Your task to perform on an android device: Empty the shopping cart on ebay.com. Add "razer kraken" to the cart on ebay.com, then select checkout. Image 0: 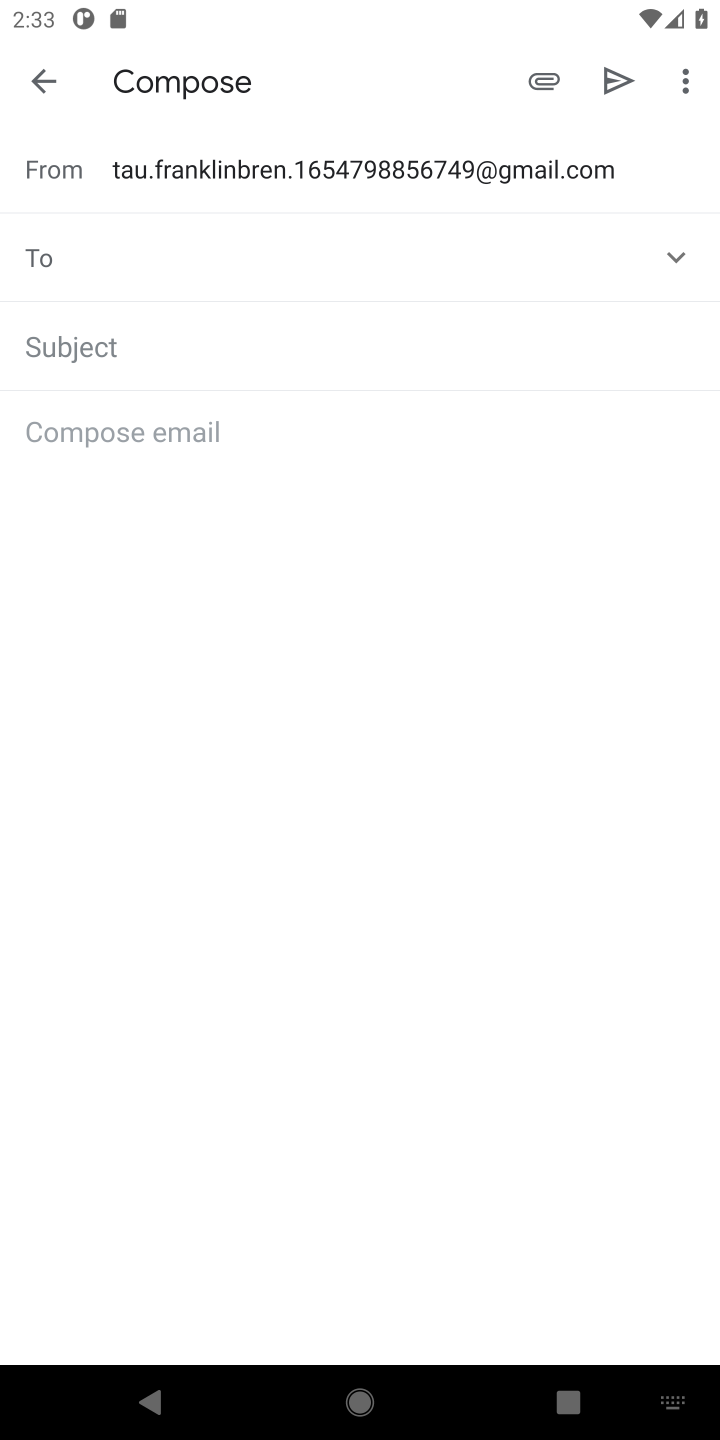
Step 0: press home button
Your task to perform on an android device: Empty the shopping cart on ebay.com. Add "razer kraken" to the cart on ebay.com, then select checkout. Image 1: 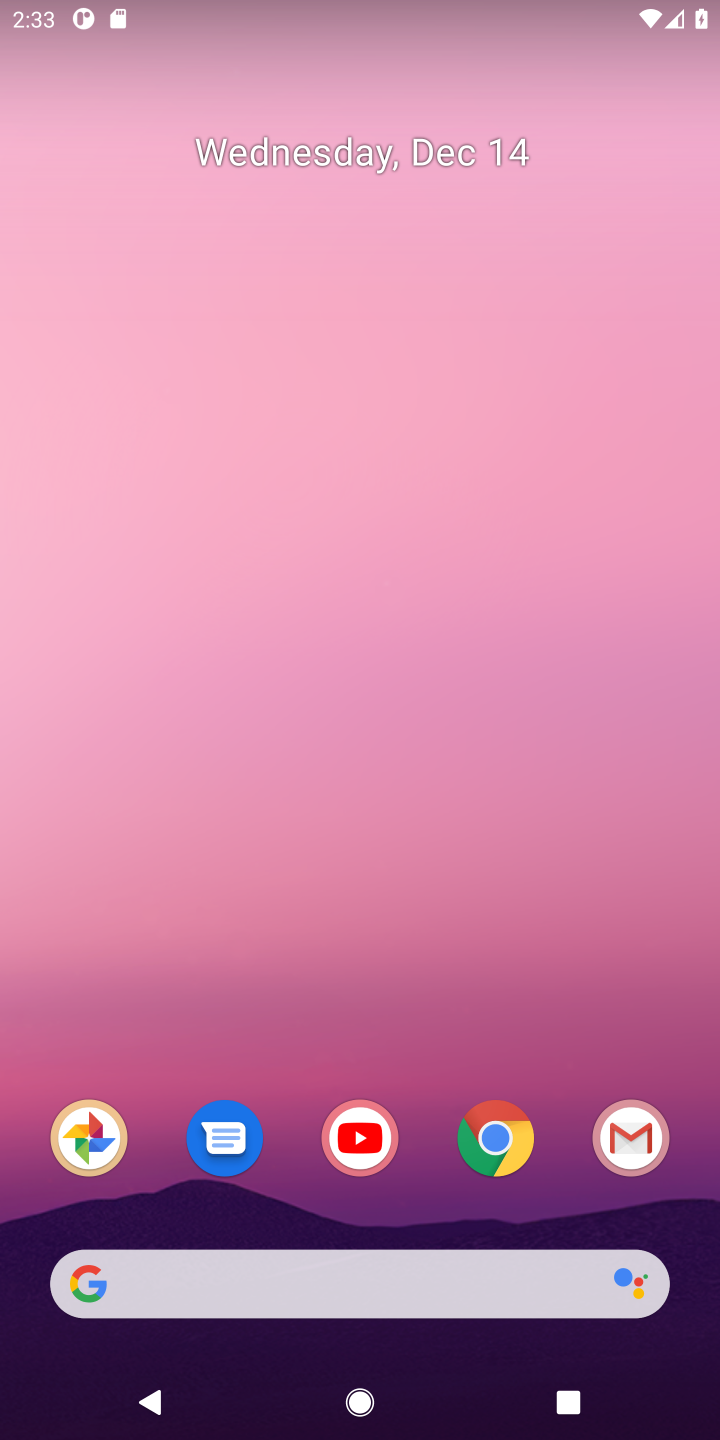
Step 1: click (484, 1112)
Your task to perform on an android device: Empty the shopping cart on ebay.com. Add "razer kraken" to the cart on ebay.com, then select checkout. Image 2: 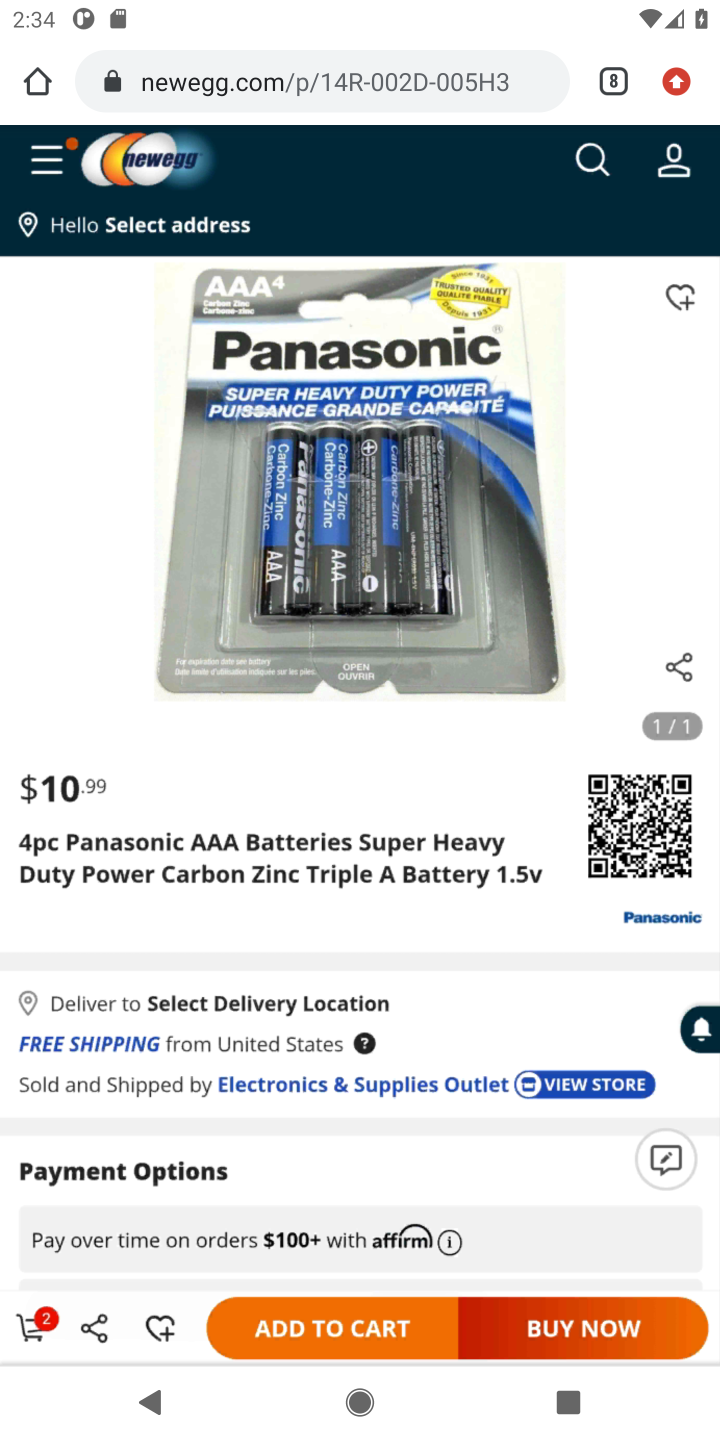
Step 2: click (599, 76)
Your task to perform on an android device: Empty the shopping cart on ebay.com. Add "razer kraken" to the cart on ebay.com, then select checkout. Image 3: 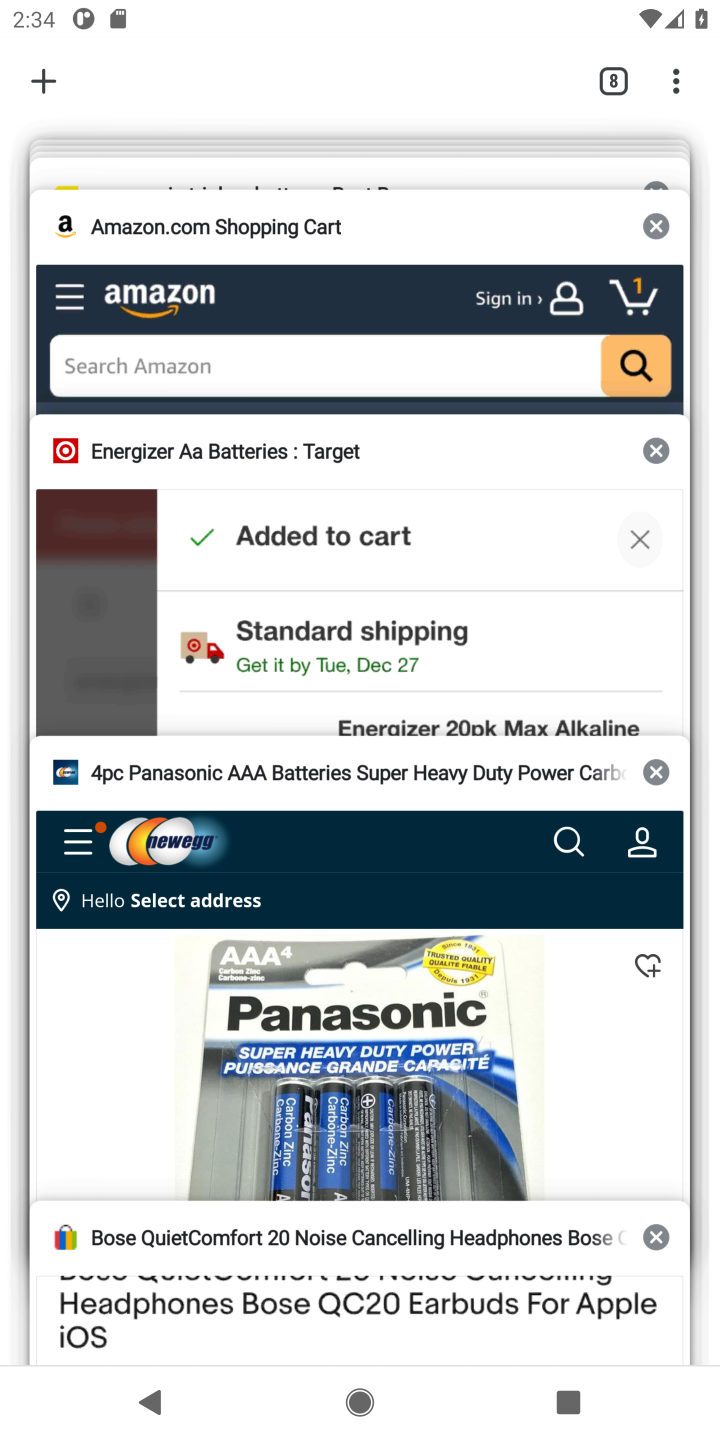
Step 3: click (419, 1243)
Your task to perform on an android device: Empty the shopping cart on ebay.com. Add "razer kraken" to the cart on ebay.com, then select checkout. Image 4: 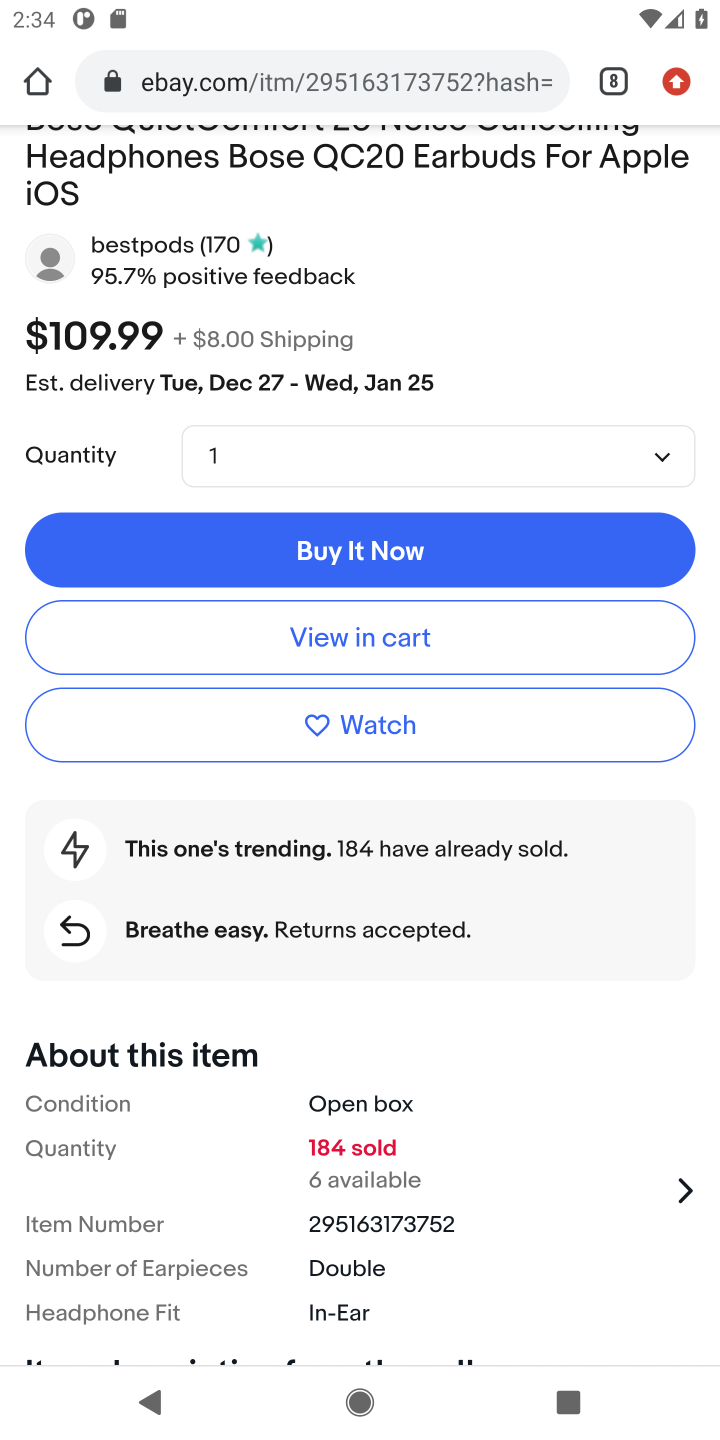
Step 4: click (308, 629)
Your task to perform on an android device: Empty the shopping cart on ebay.com. Add "razer kraken" to the cart on ebay.com, then select checkout. Image 5: 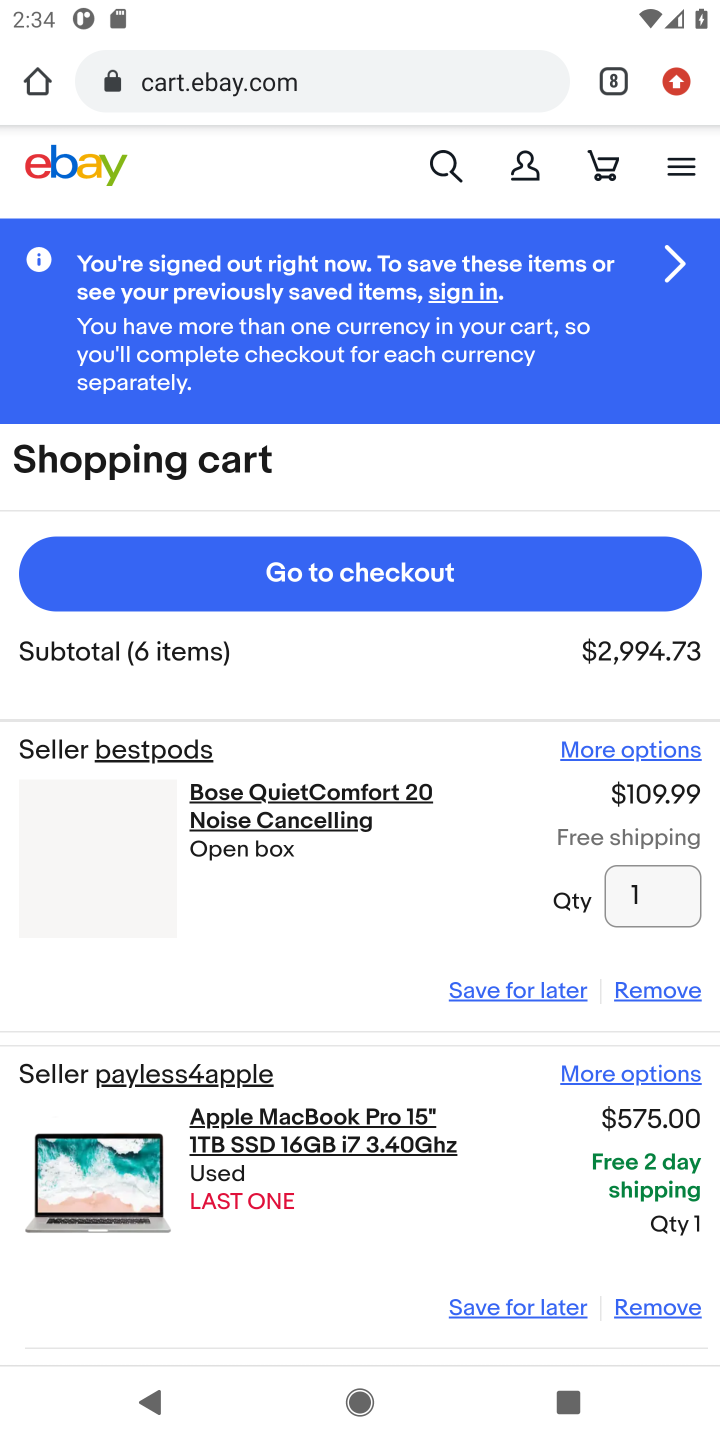
Step 5: click (644, 989)
Your task to perform on an android device: Empty the shopping cart on ebay.com. Add "razer kraken" to the cart on ebay.com, then select checkout. Image 6: 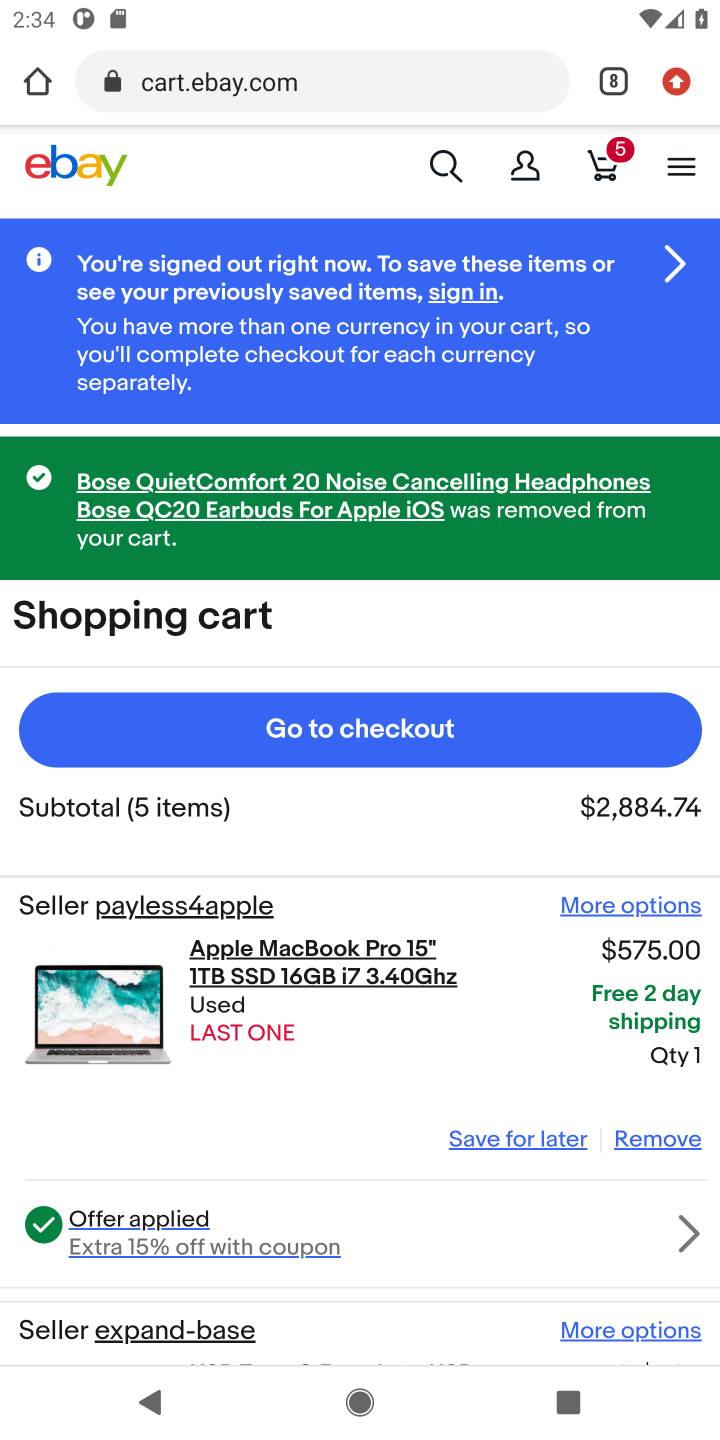
Step 6: click (668, 1133)
Your task to perform on an android device: Empty the shopping cart on ebay.com. Add "razer kraken" to the cart on ebay.com, then select checkout. Image 7: 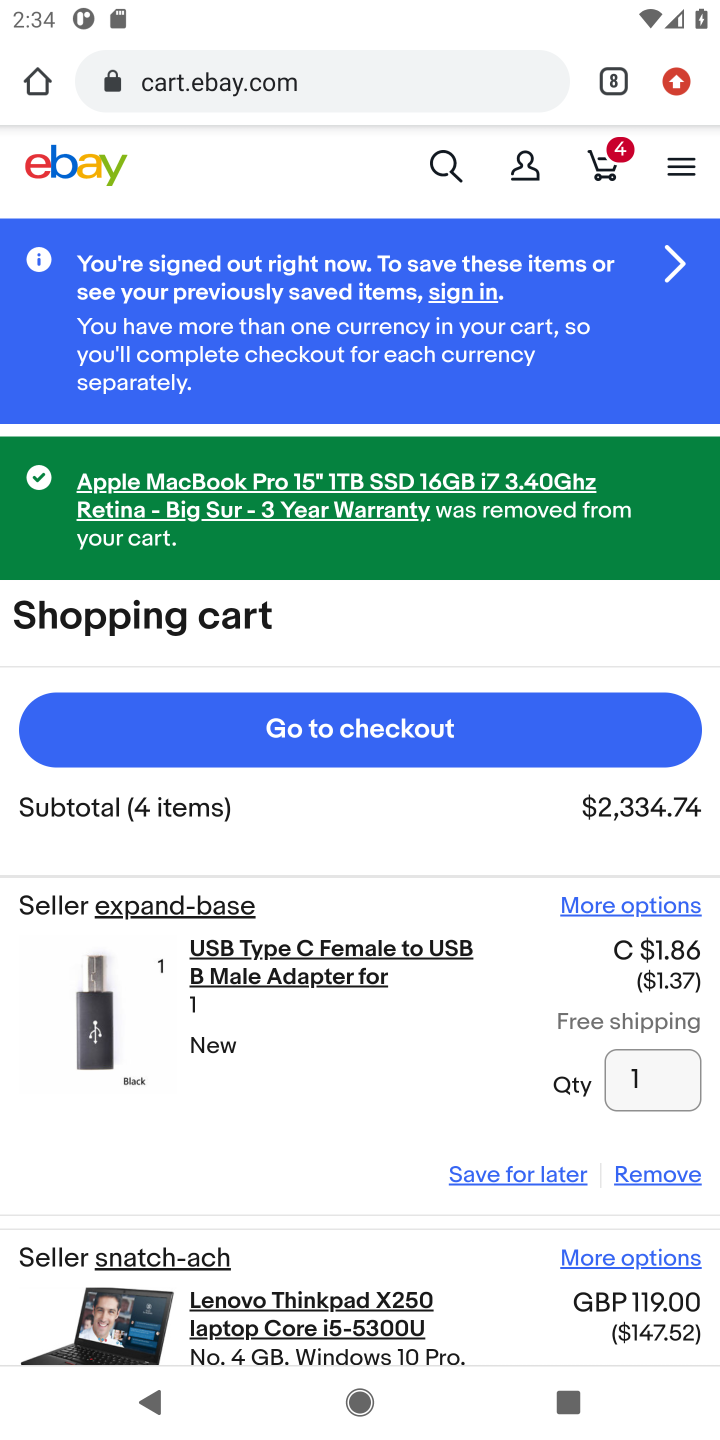
Step 7: click (665, 1168)
Your task to perform on an android device: Empty the shopping cart on ebay.com. Add "razer kraken" to the cart on ebay.com, then select checkout. Image 8: 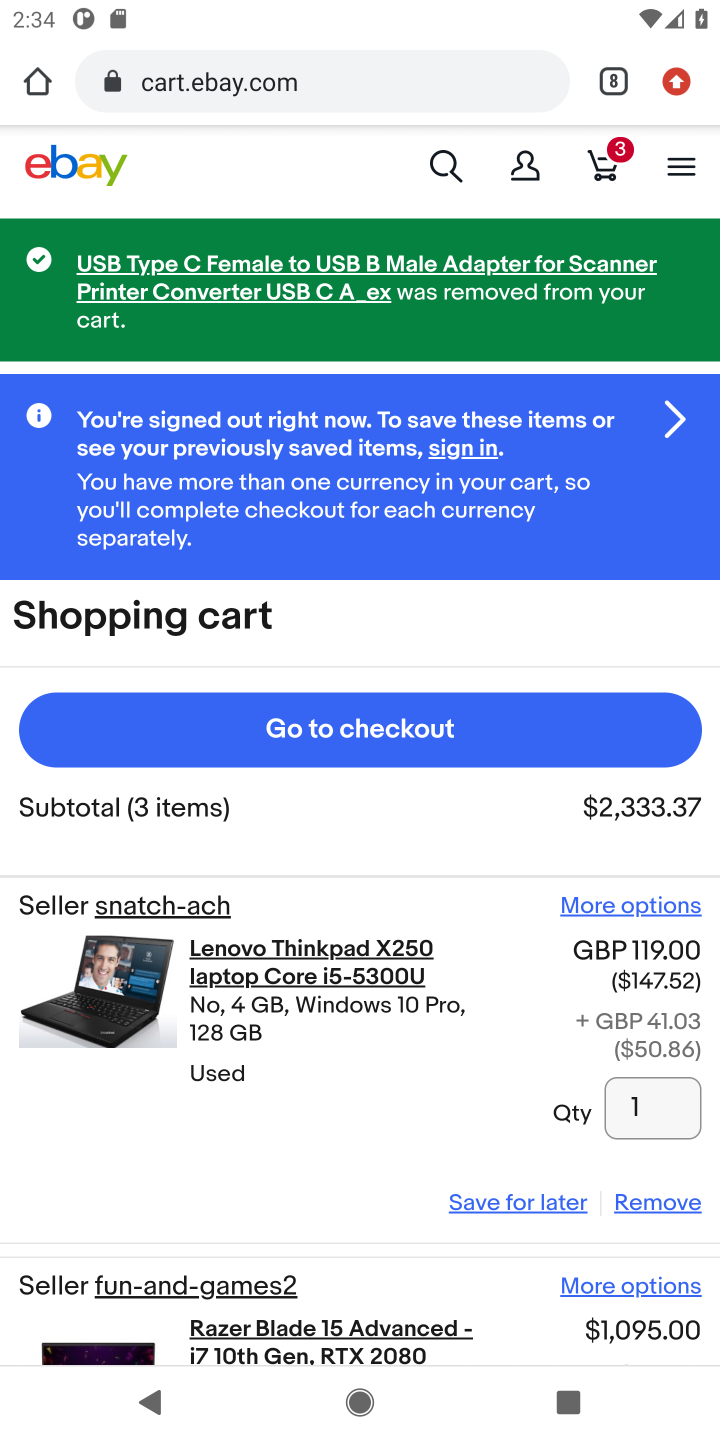
Step 8: click (672, 1200)
Your task to perform on an android device: Empty the shopping cart on ebay.com. Add "razer kraken" to the cart on ebay.com, then select checkout. Image 9: 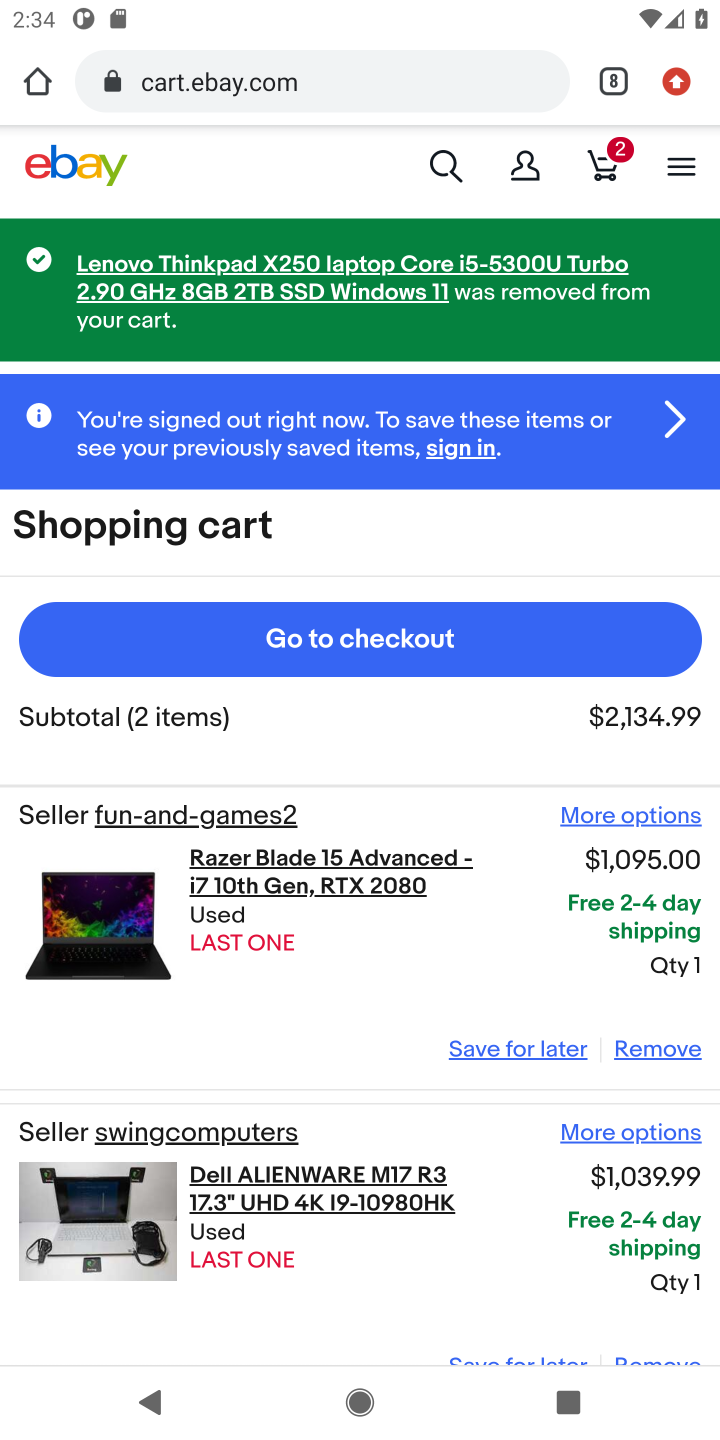
Step 9: click (656, 1048)
Your task to perform on an android device: Empty the shopping cart on ebay.com. Add "razer kraken" to the cart on ebay.com, then select checkout. Image 10: 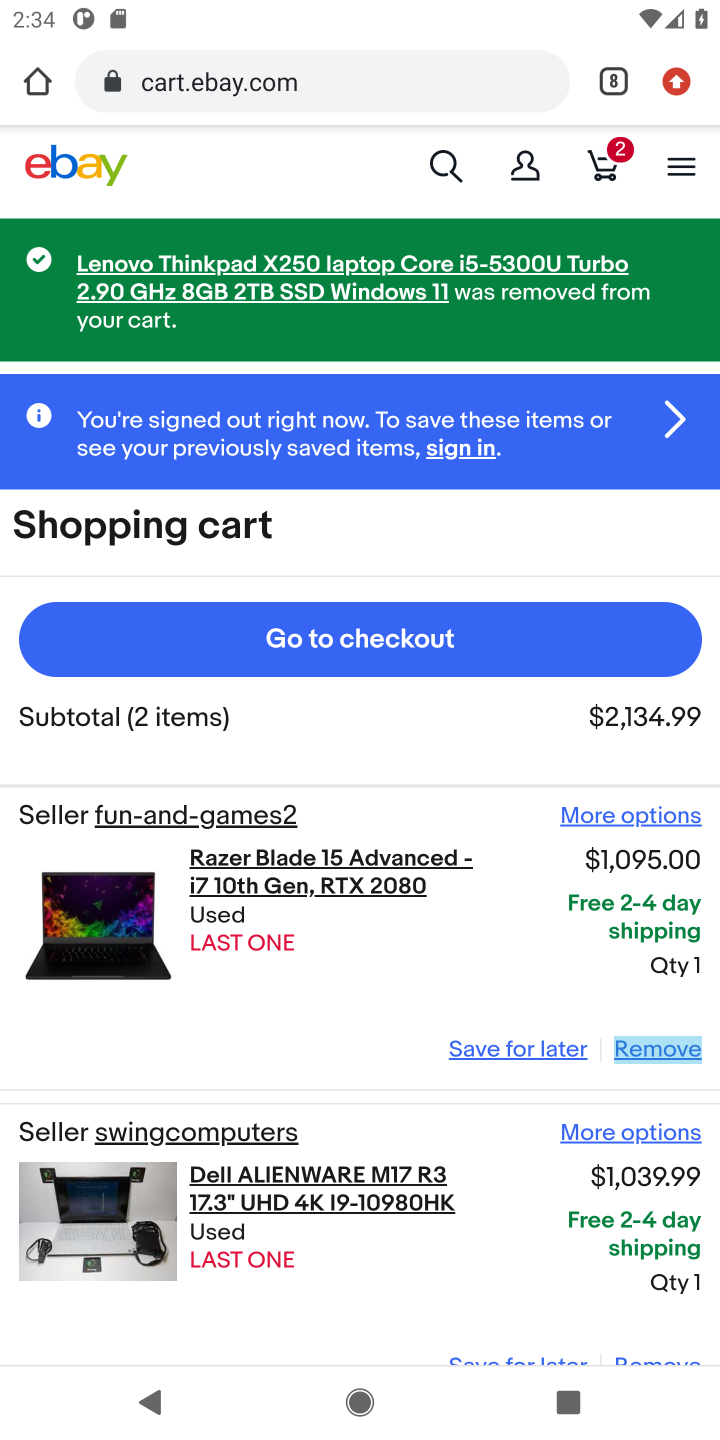
Step 10: click (656, 1048)
Your task to perform on an android device: Empty the shopping cart on ebay.com. Add "razer kraken" to the cart on ebay.com, then select checkout. Image 11: 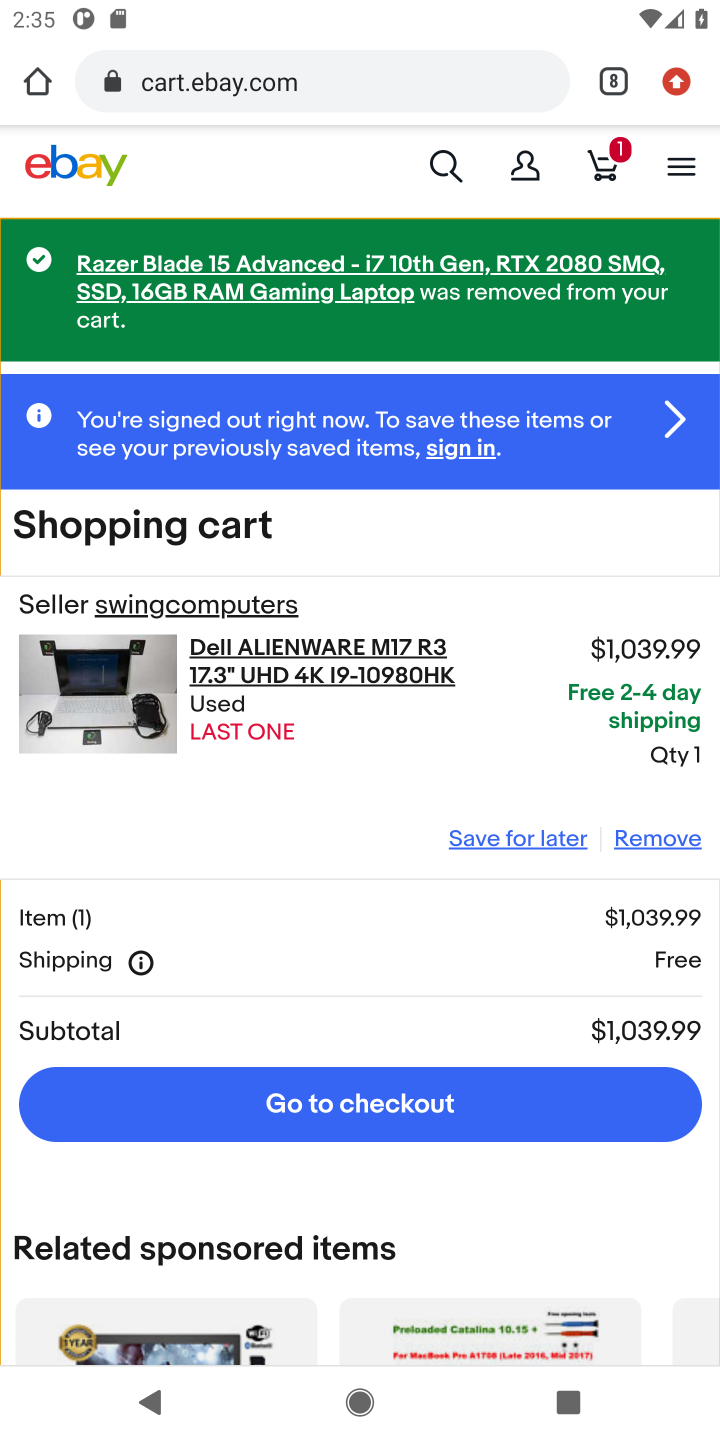
Step 11: click (666, 831)
Your task to perform on an android device: Empty the shopping cart on ebay.com. Add "razer kraken" to the cart on ebay.com, then select checkout. Image 12: 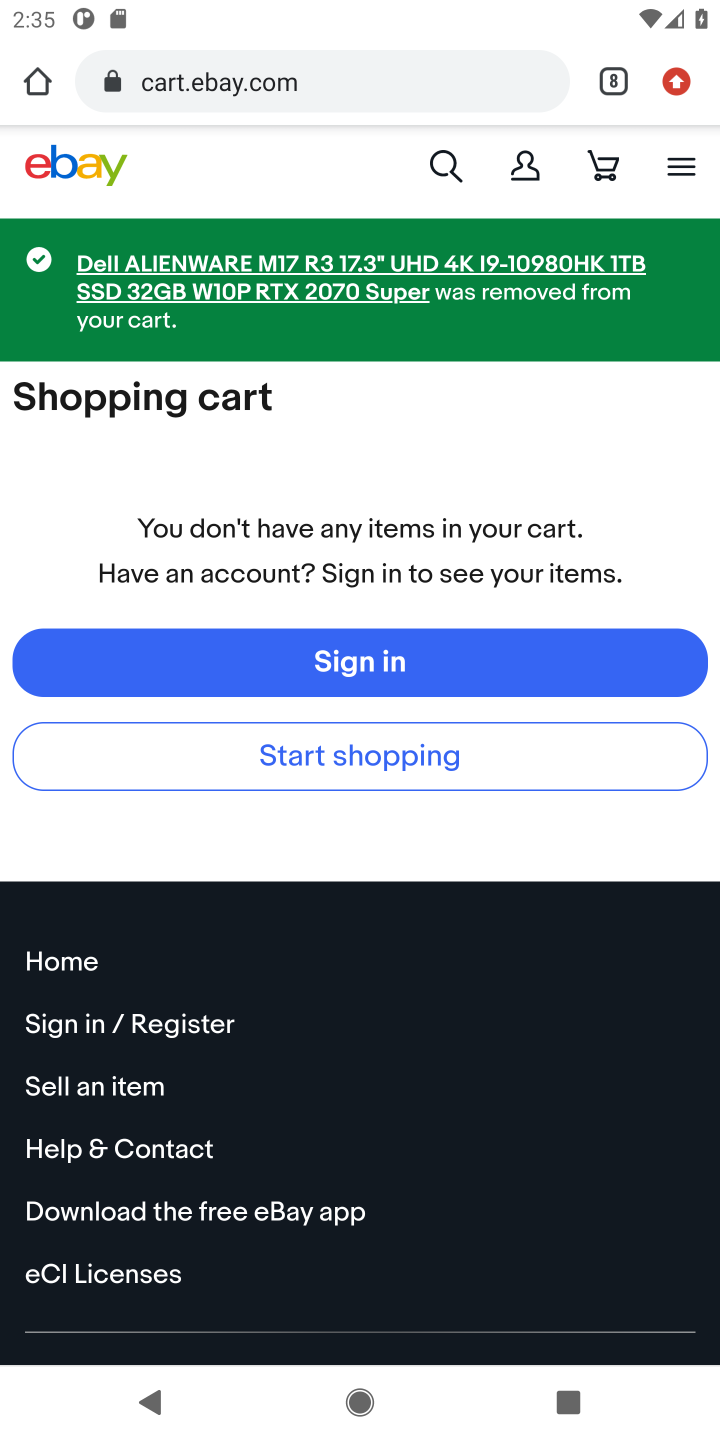
Step 12: click (452, 156)
Your task to perform on an android device: Empty the shopping cart on ebay.com. Add "razer kraken" to the cart on ebay.com, then select checkout. Image 13: 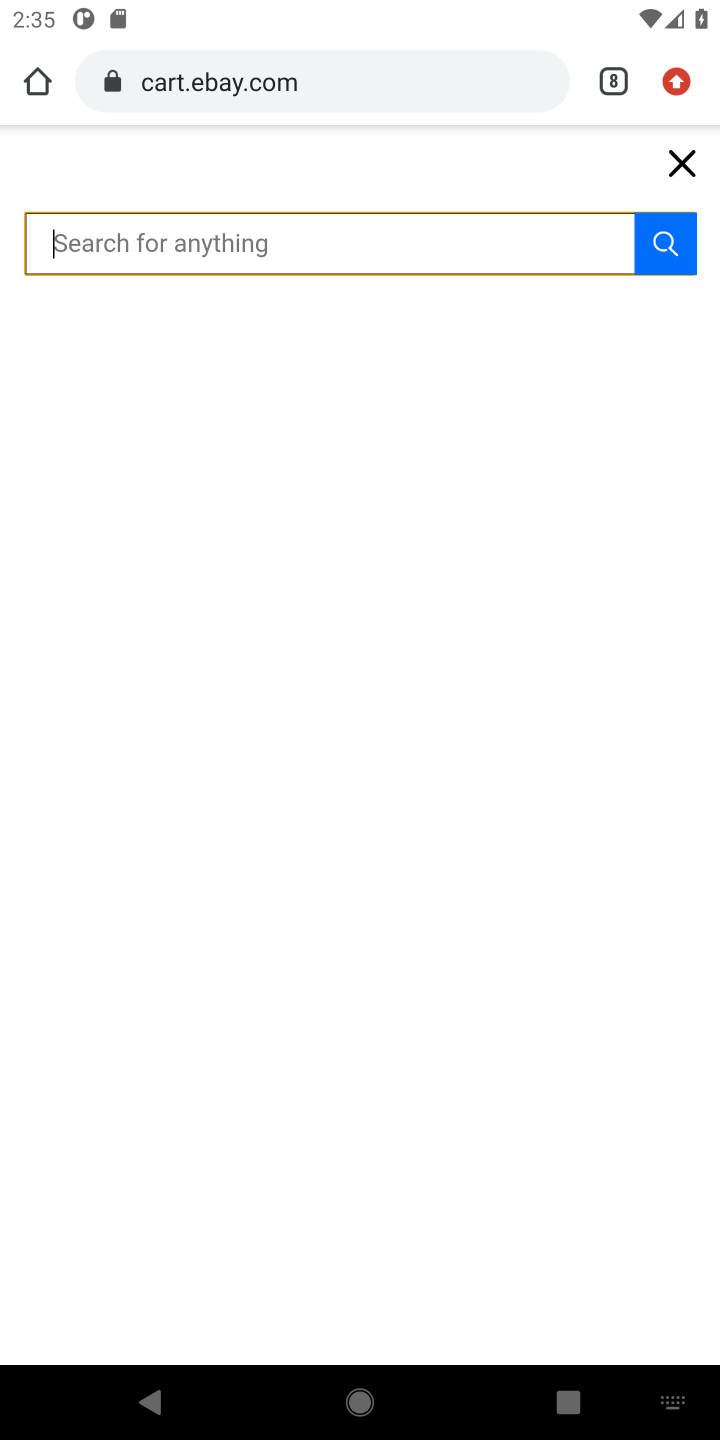
Step 13: type ""razer kraken"
Your task to perform on an android device: Empty the shopping cart on ebay.com. Add "razer kraken" to the cart on ebay.com, then select checkout. Image 14: 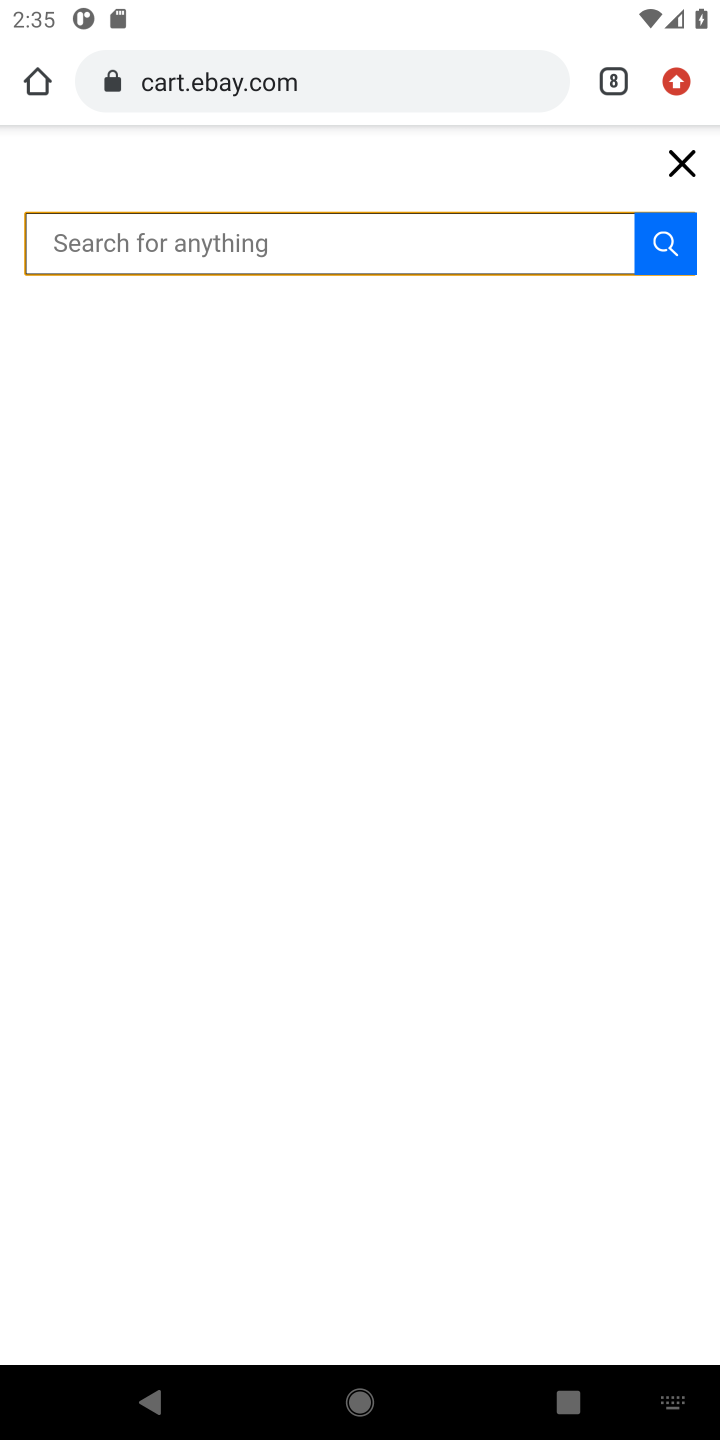
Step 14: type ""razer kraken"
Your task to perform on an android device: Empty the shopping cart on ebay.com. Add "razer kraken" to the cart on ebay.com, then select checkout. Image 15: 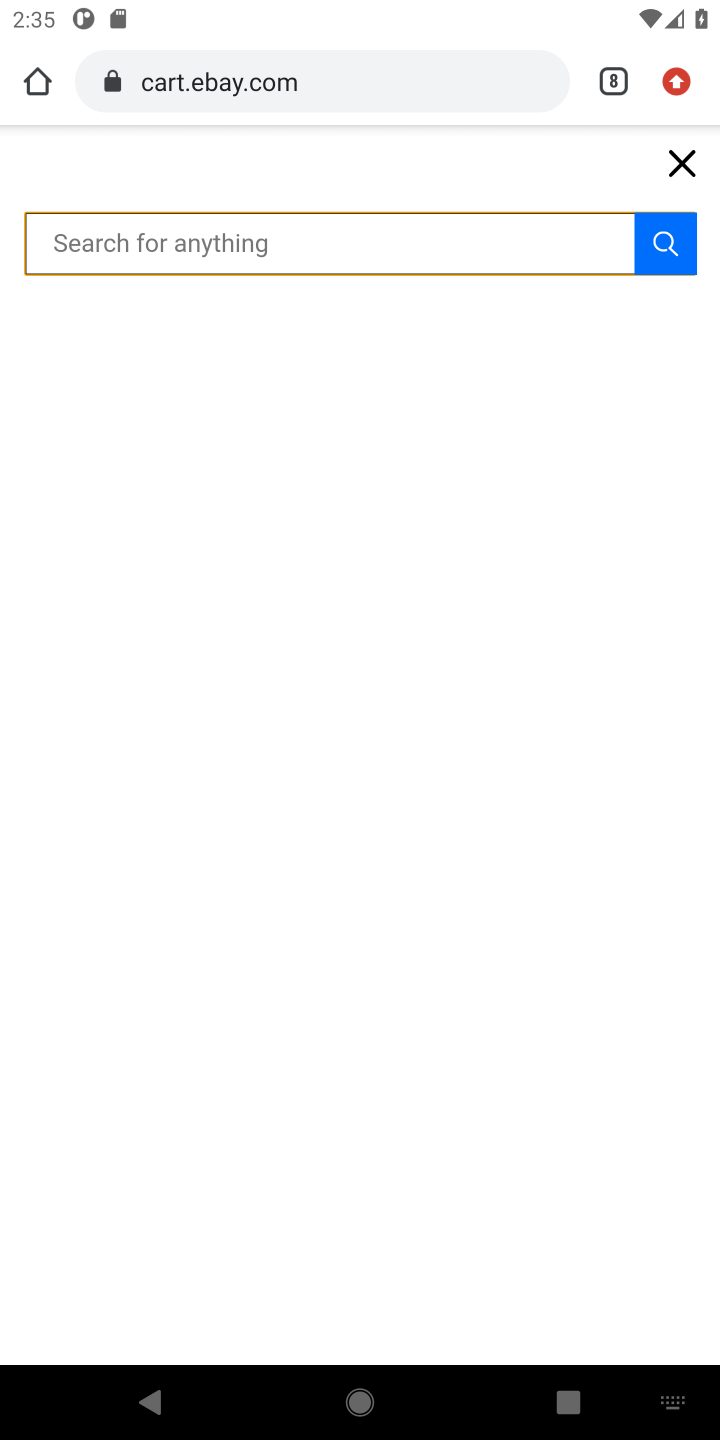
Step 15: type ""razer kraken"
Your task to perform on an android device: Empty the shopping cart on ebay.com. Add "razer kraken" to the cart on ebay.com, then select checkout. Image 16: 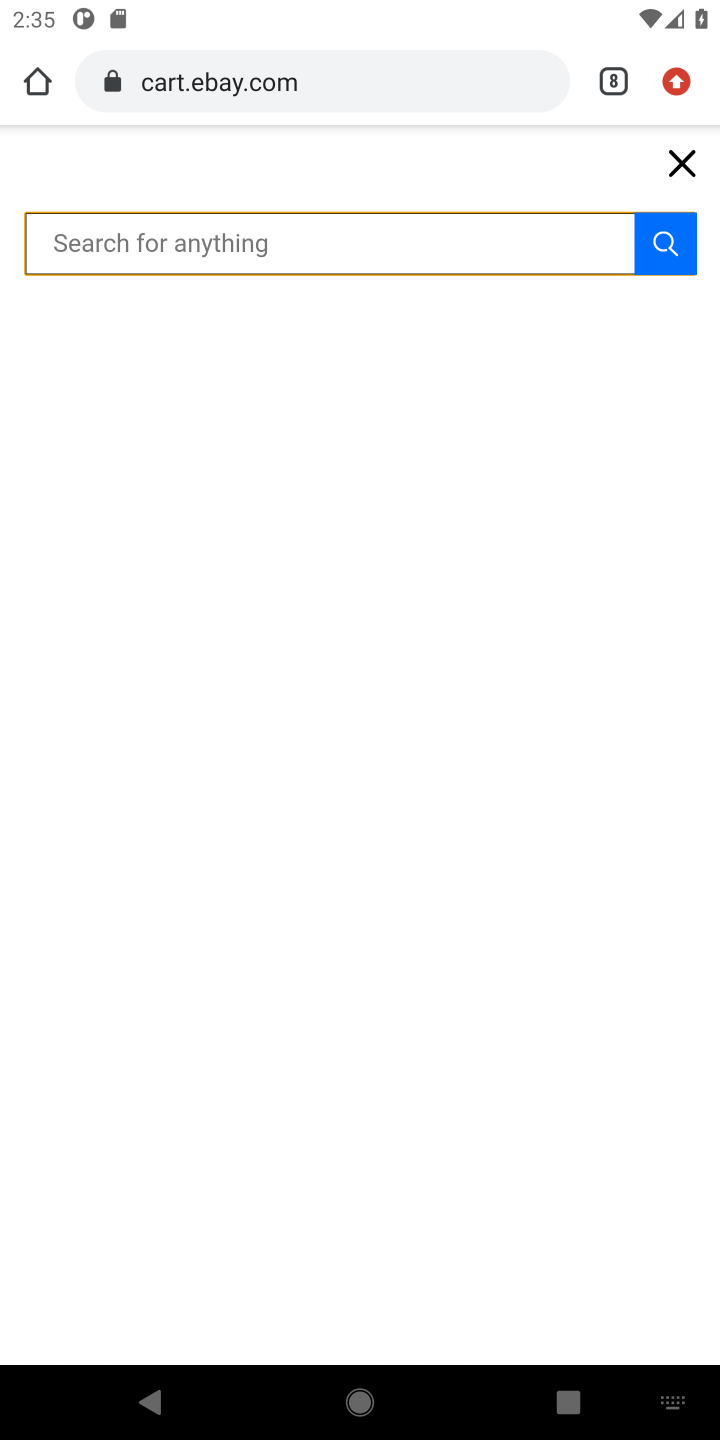
Step 16: type "razer kraken"
Your task to perform on an android device: Empty the shopping cart on ebay.com. Add "razer kraken" to the cart on ebay.com, then select checkout. Image 17: 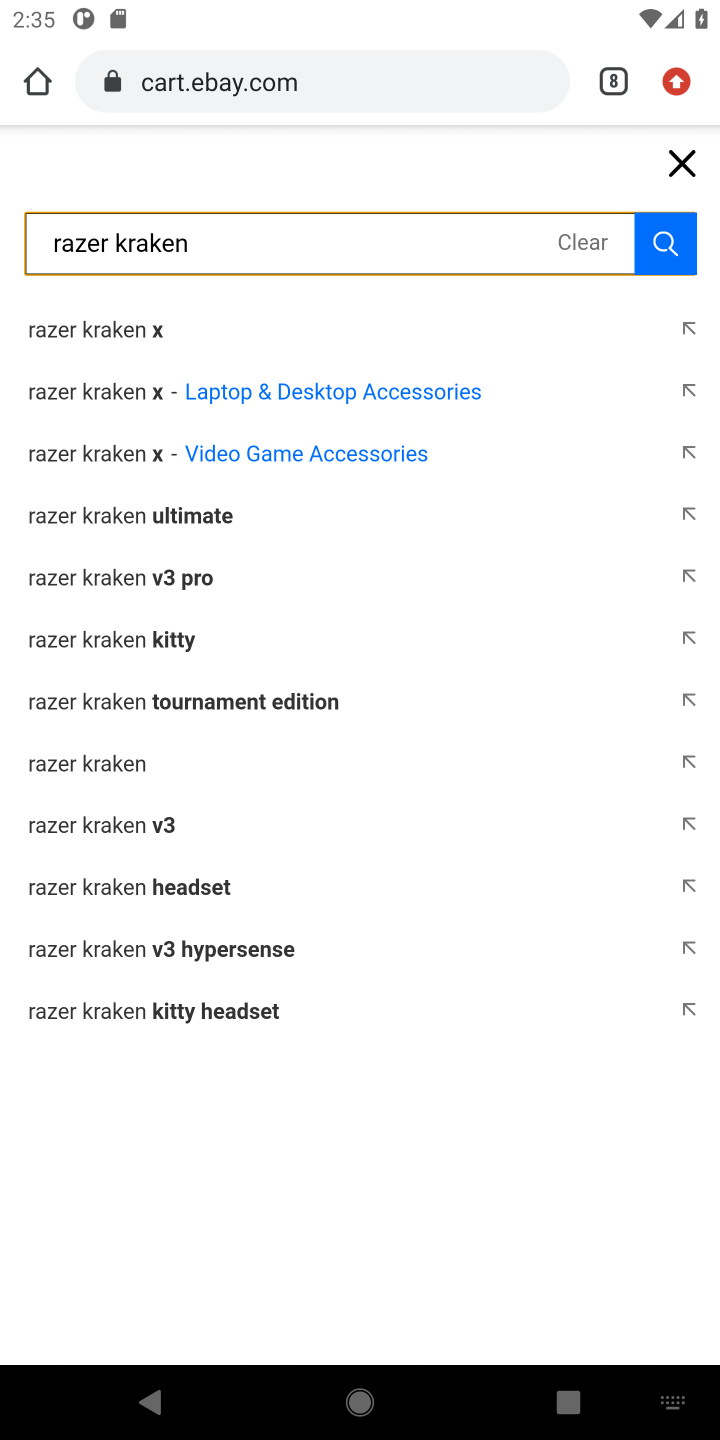
Step 17: click (79, 382)
Your task to perform on an android device: Empty the shopping cart on ebay.com. Add "razer kraken" to the cart on ebay.com, then select checkout. Image 18: 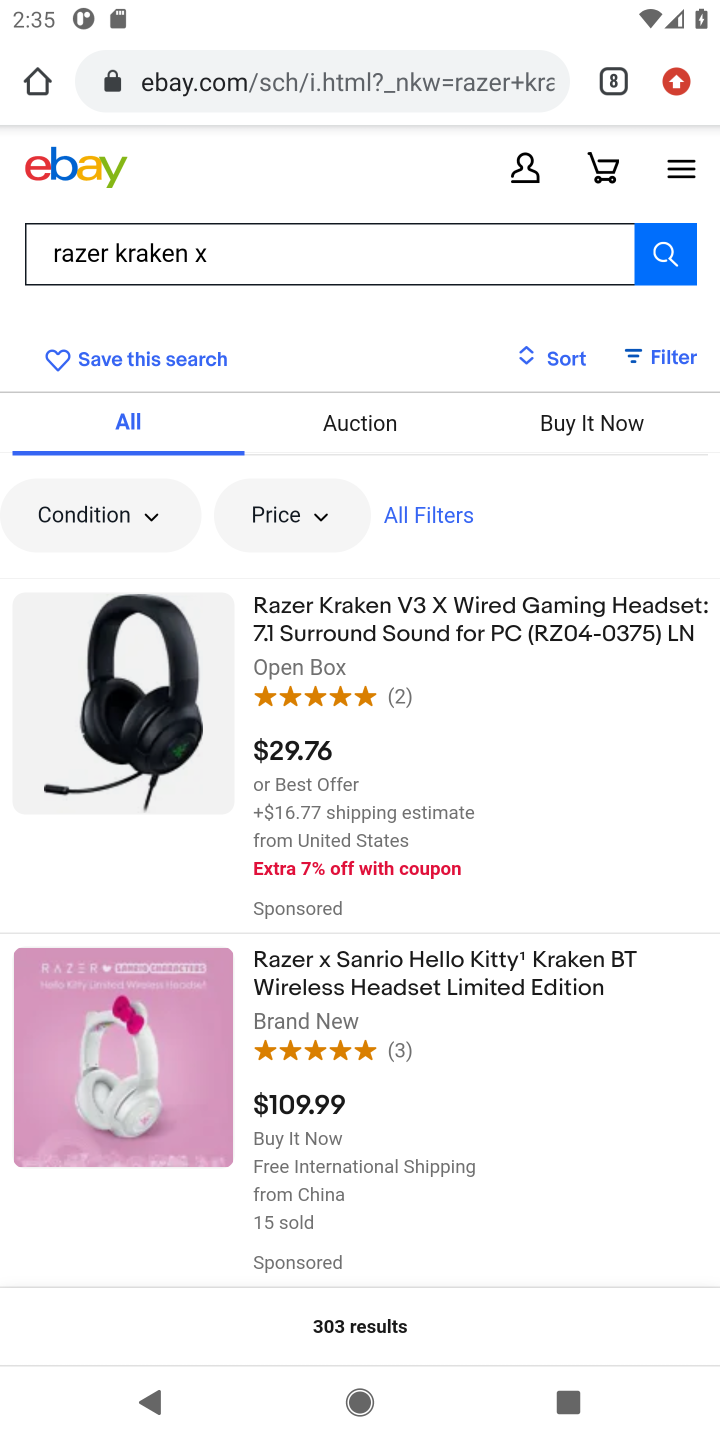
Step 18: click (403, 618)
Your task to perform on an android device: Empty the shopping cart on ebay.com. Add "razer kraken" to the cart on ebay.com, then select checkout. Image 19: 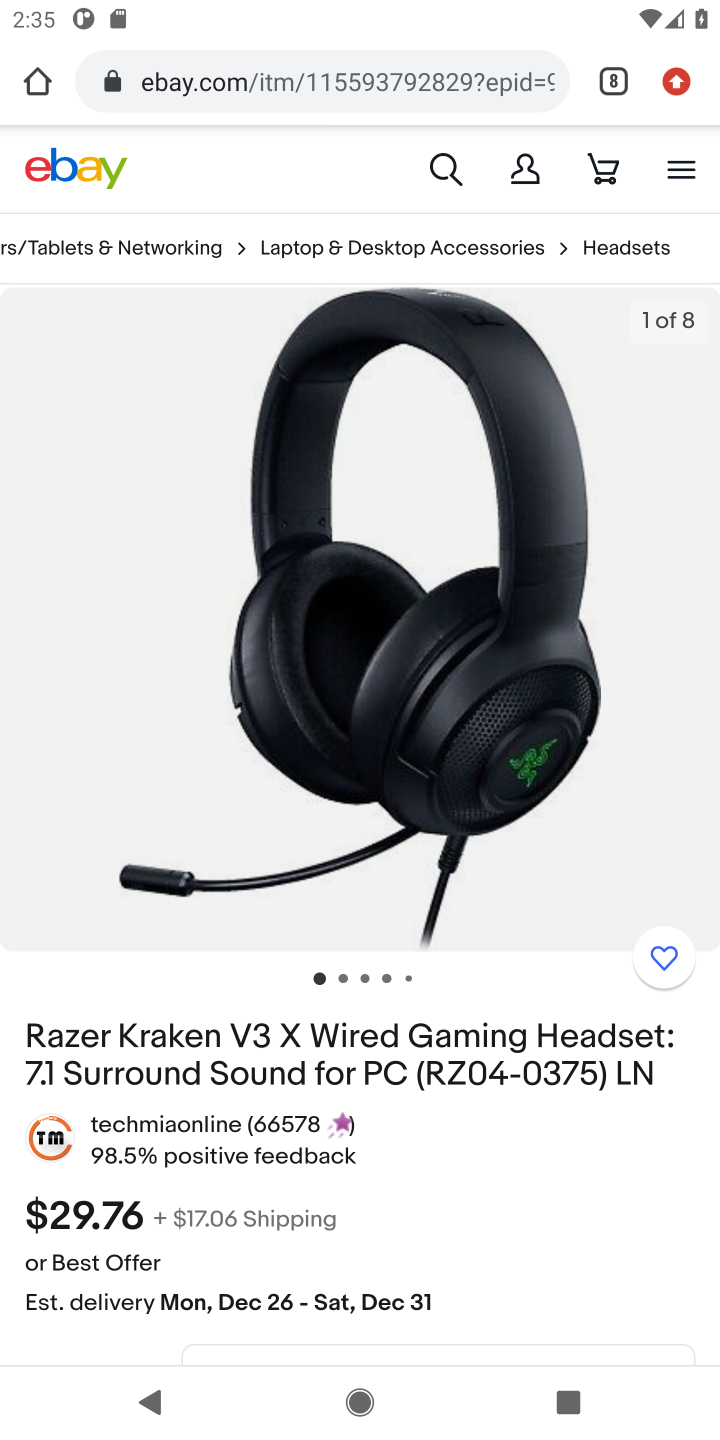
Step 19: drag from (528, 1178) to (715, 496)
Your task to perform on an android device: Empty the shopping cart on ebay.com. Add "razer kraken" to the cart on ebay.com, then select checkout. Image 20: 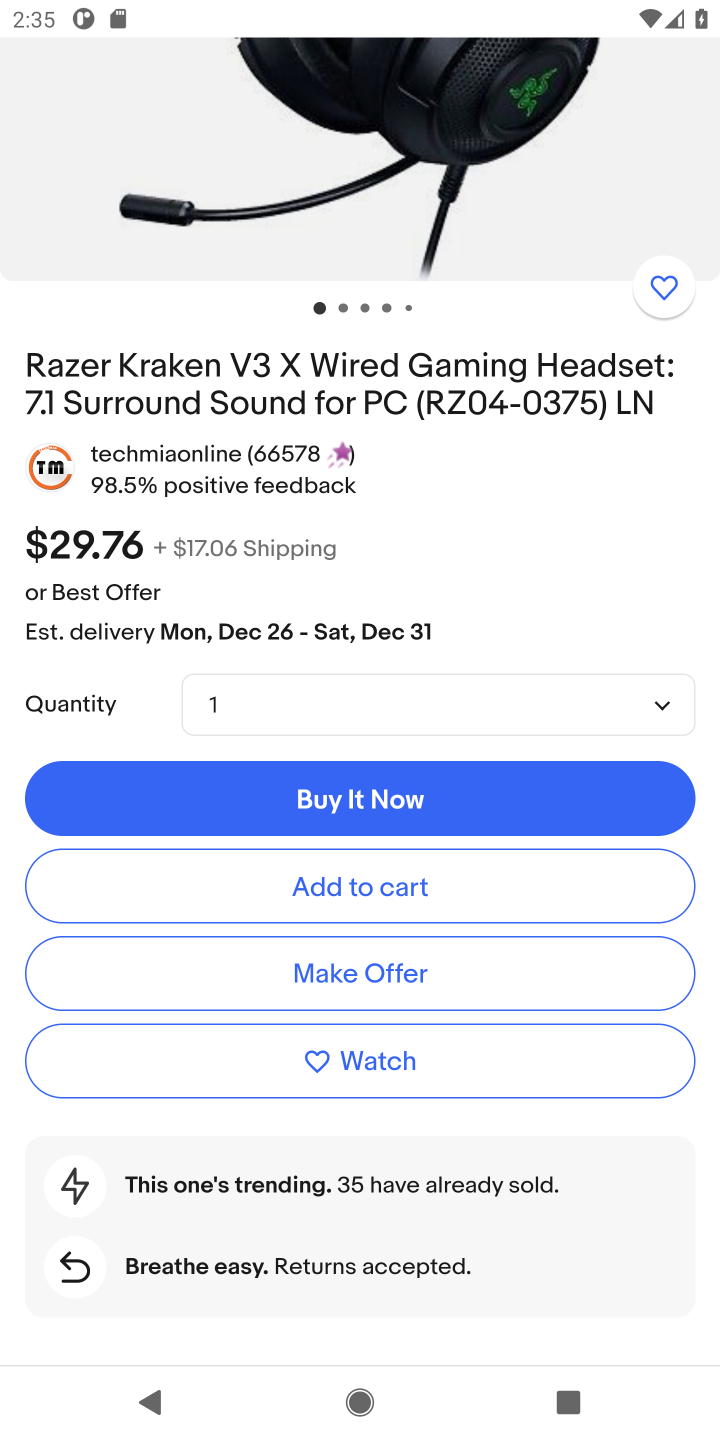
Step 20: click (331, 885)
Your task to perform on an android device: Empty the shopping cart on ebay.com. Add "razer kraken" to the cart on ebay.com, then select checkout. Image 21: 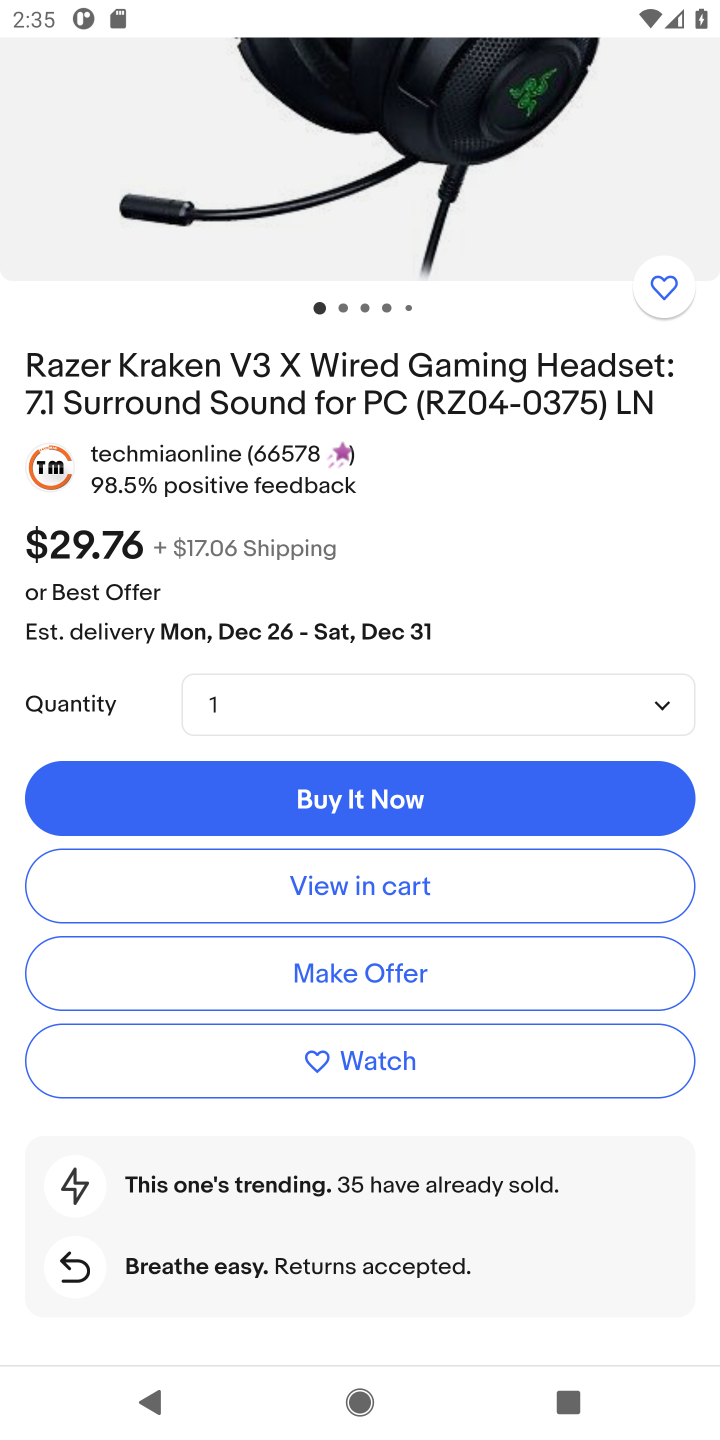
Step 21: task complete